Your task to perform on an android device: Go to wifi settings Image 0: 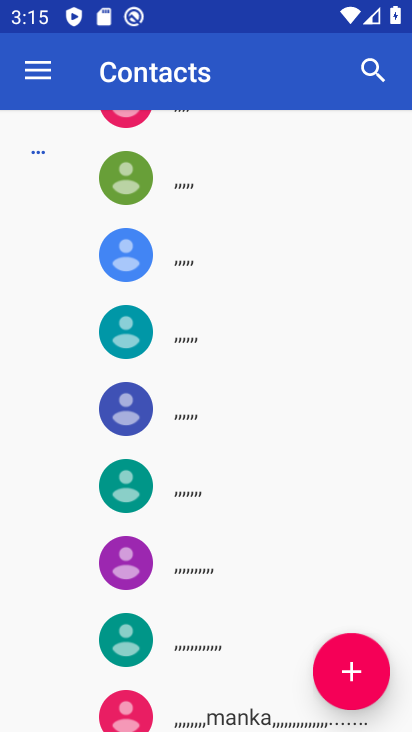
Step 0: press home button
Your task to perform on an android device: Go to wifi settings Image 1: 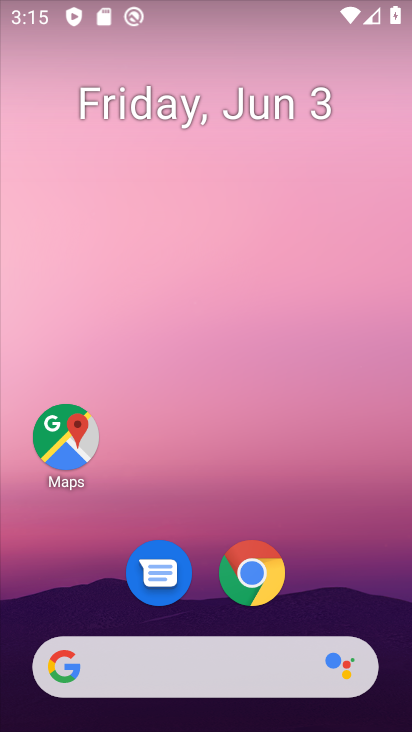
Step 1: drag from (388, 687) to (331, 80)
Your task to perform on an android device: Go to wifi settings Image 2: 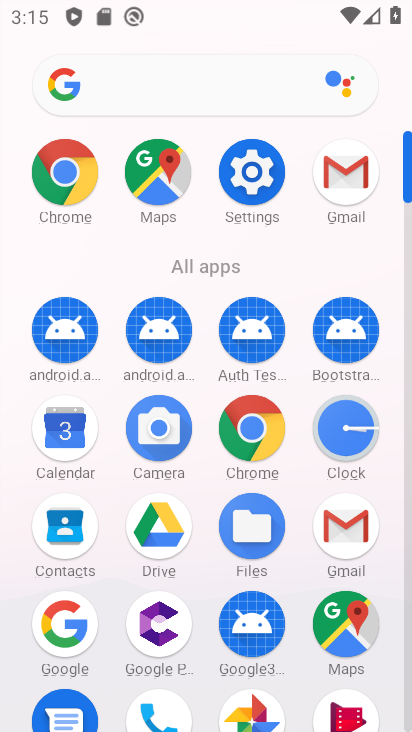
Step 2: click (241, 187)
Your task to perform on an android device: Go to wifi settings Image 3: 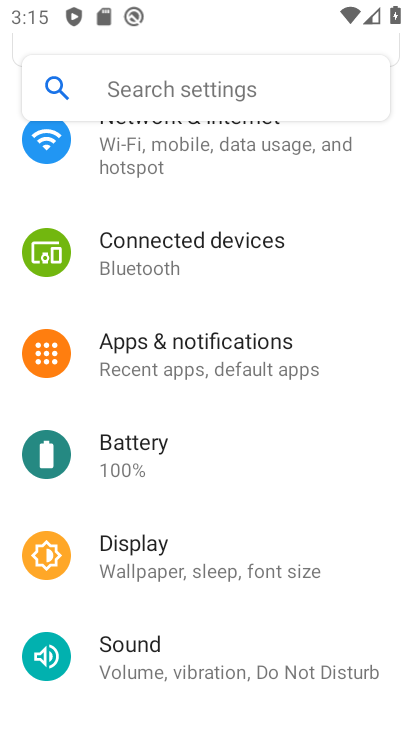
Step 3: drag from (279, 161) to (291, 576)
Your task to perform on an android device: Go to wifi settings Image 4: 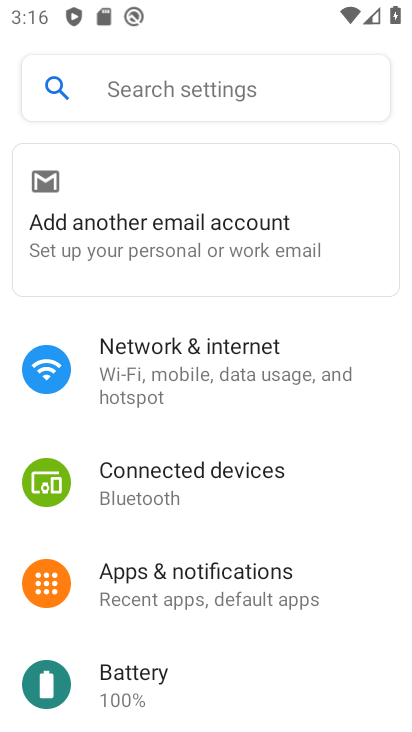
Step 4: click (137, 366)
Your task to perform on an android device: Go to wifi settings Image 5: 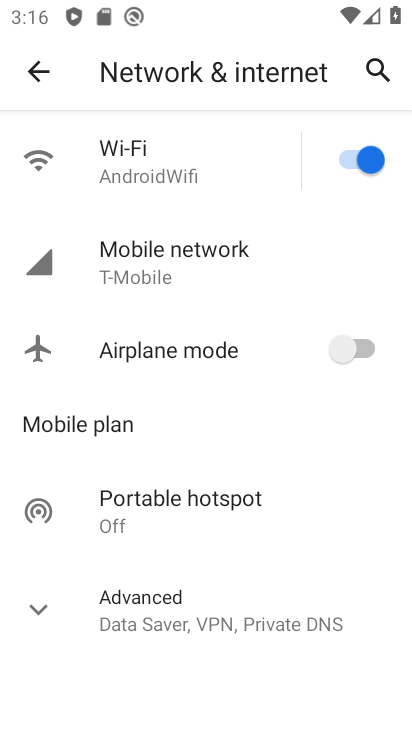
Step 5: click (164, 184)
Your task to perform on an android device: Go to wifi settings Image 6: 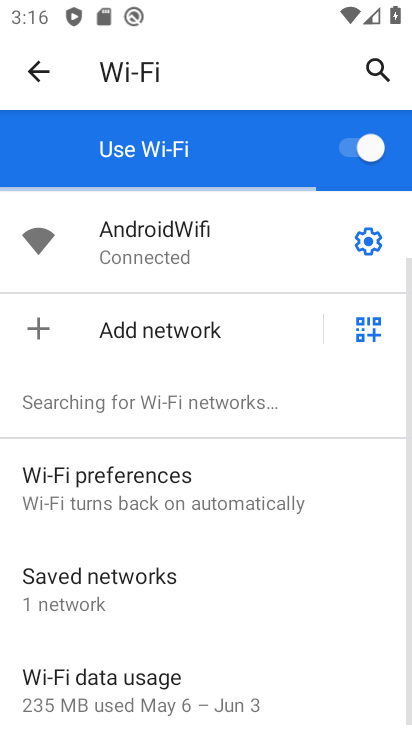
Step 6: click (365, 234)
Your task to perform on an android device: Go to wifi settings Image 7: 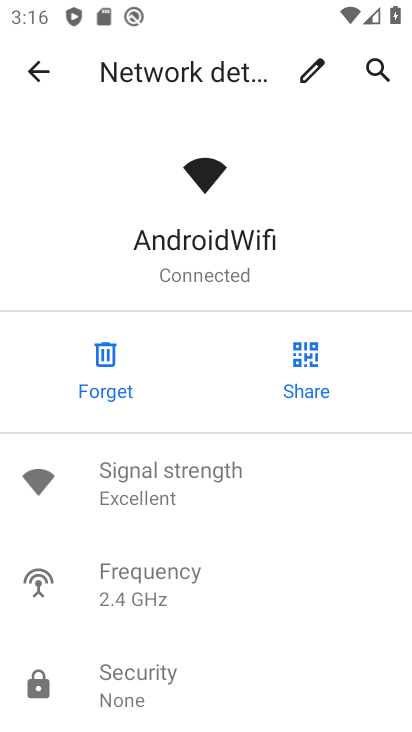
Step 7: drag from (282, 620) to (265, 188)
Your task to perform on an android device: Go to wifi settings Image 8: 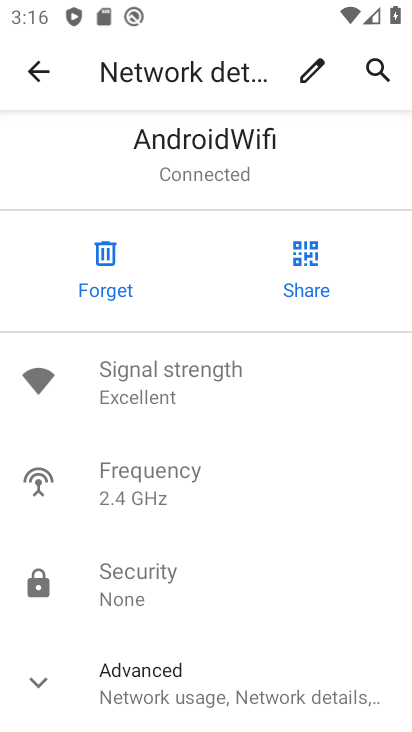
Step 8: drag from (264, 632) to (264, 507)
Your task to perform on an android device: Go to wifi settings Image 9: 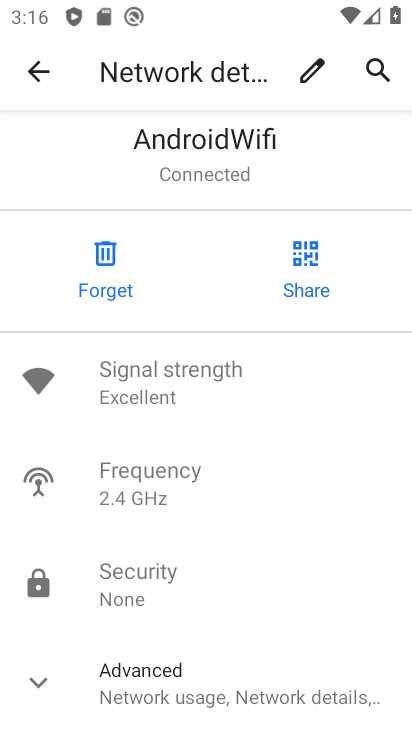
Step 9: click (38, 680)
Your task to perform on an android device: Go to wifi settings Image 10: 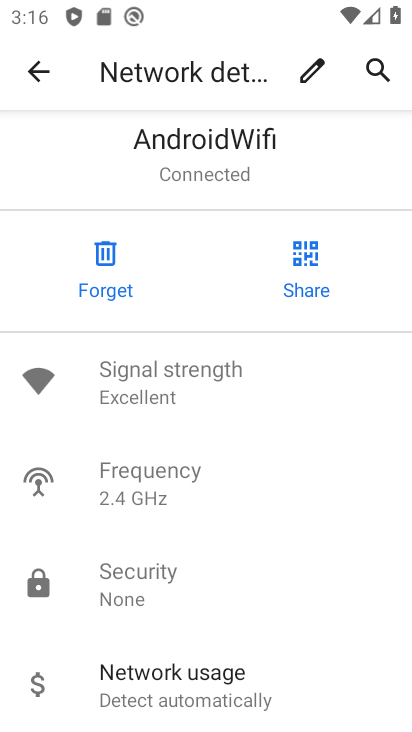
Step 10: task complete